Your task to perform on an android device: turn on showing notifications on the lock screen Image 0: 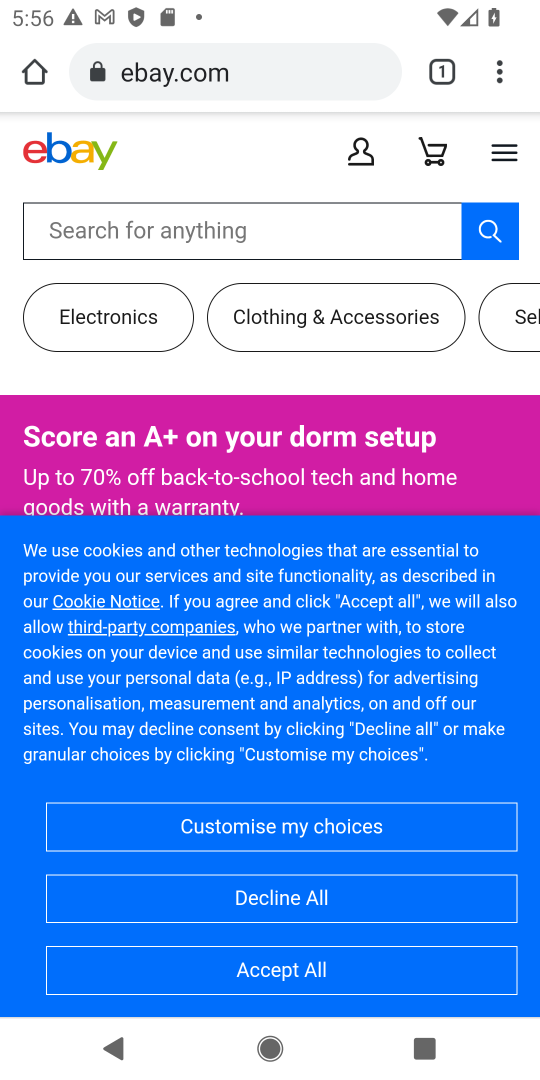
Step 0: press home button
Your task to perform on an android device: turn on showing notifications on the lock screen Image 1: 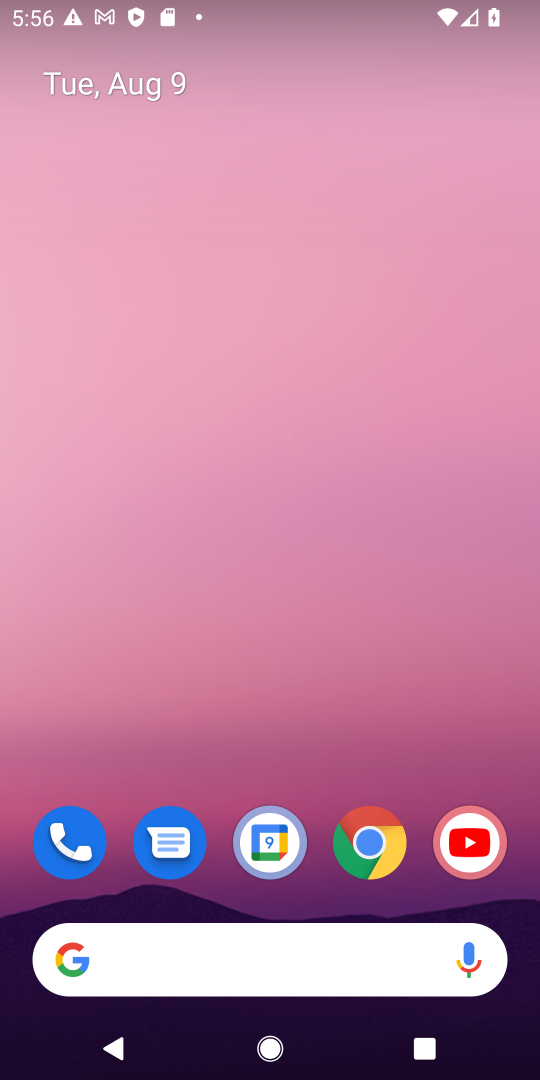
Step 1: drag from (213, 766) to (277, 244)
Your task to perform on an android device: turn on showing notifications on the lock screen Image 2: 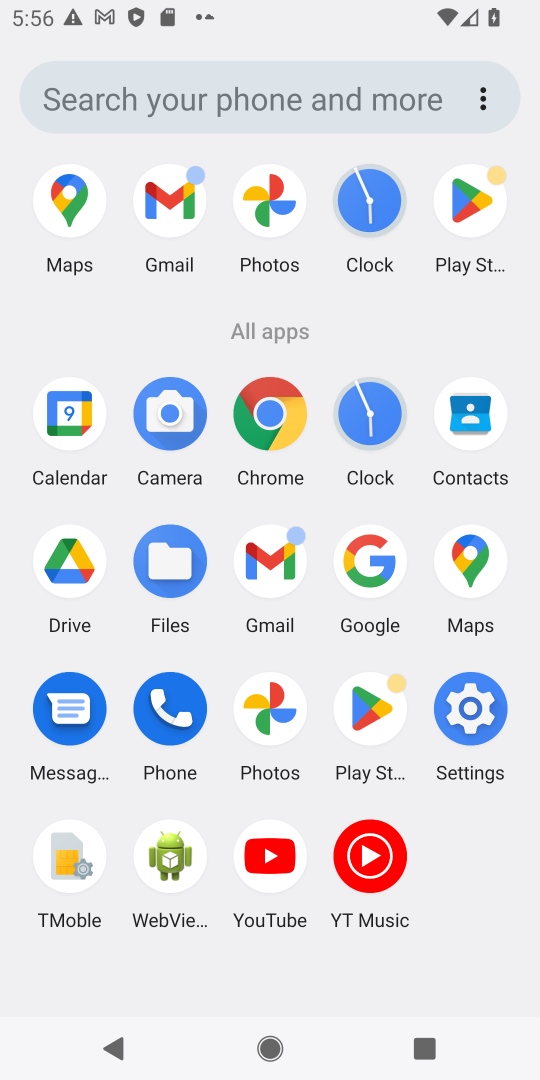
Step 2: click (457, 719)
Your task to perform on an android device: turn on showing notifications on the lock screen Image 3: 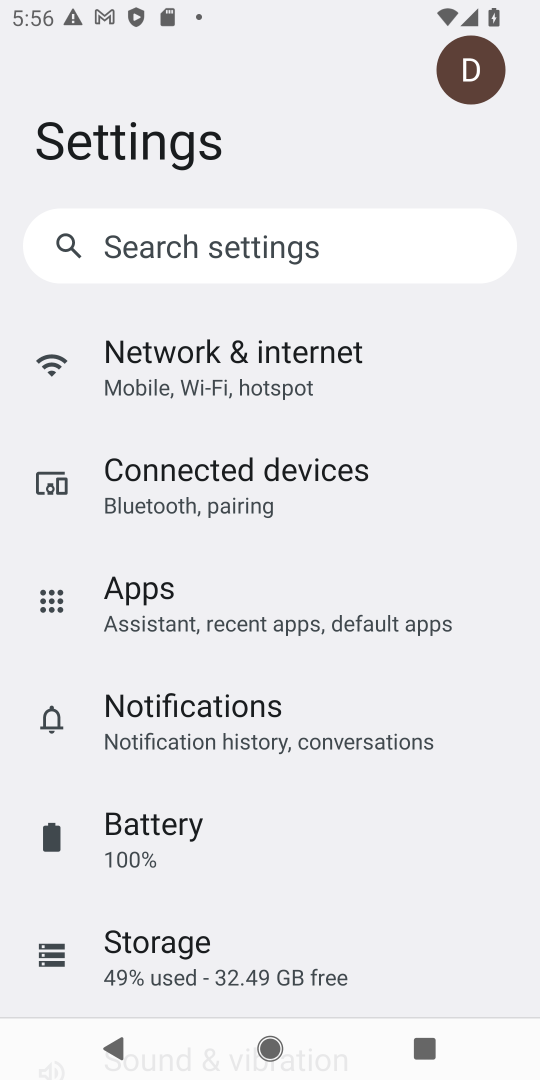
Step 3: click (232, 384)
Your task to perform on an android device: turn on showing notifications on the lock screen Image 4: 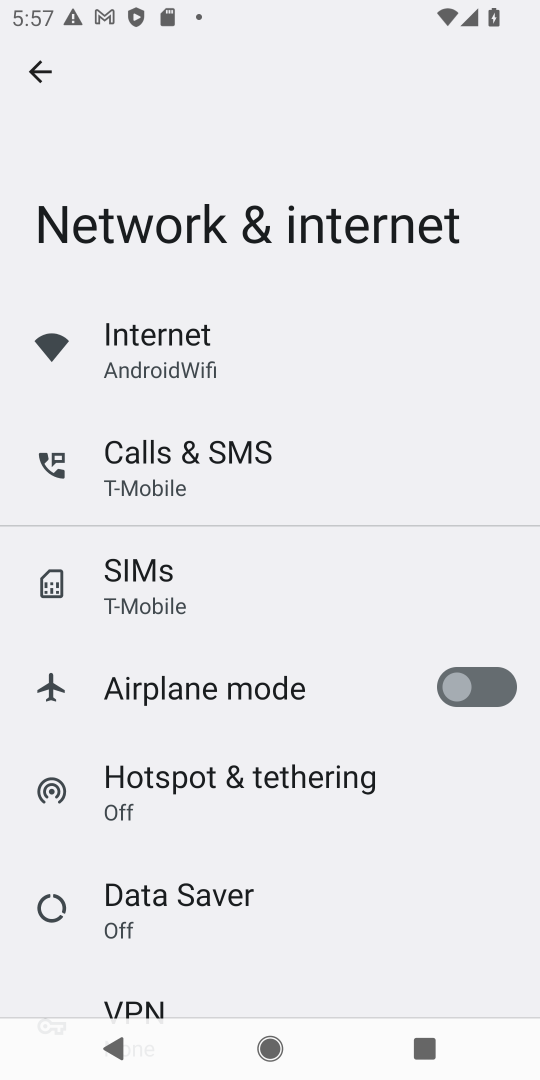
Step 4: click (146, 359)
Your task to perform on an android device: turn on showing notifications on the lock screen Image 5: 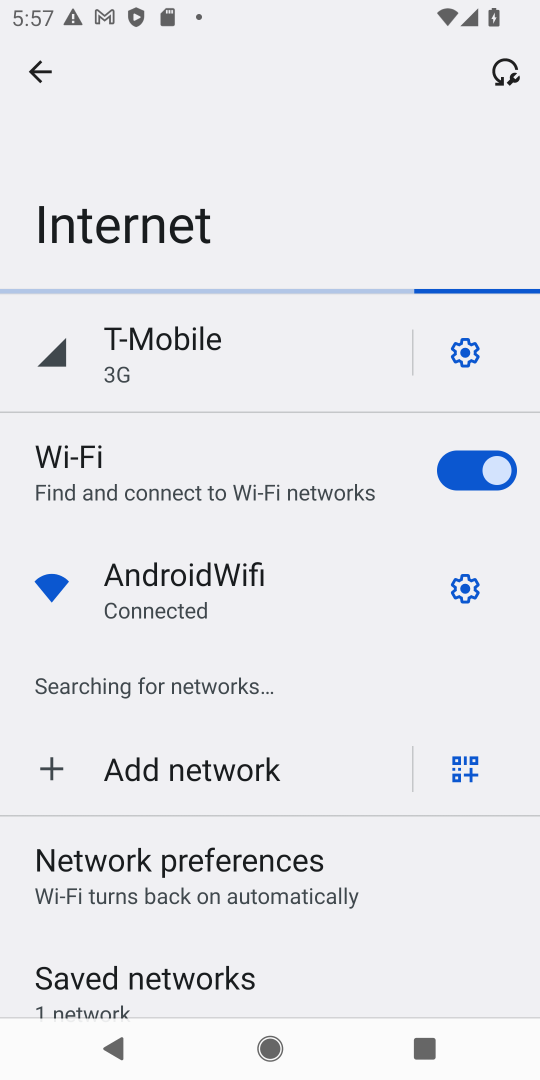
Step 5: click (124, 346)
Your task to perform on an android device: turn on showing notifications on the lock screen Image 6: 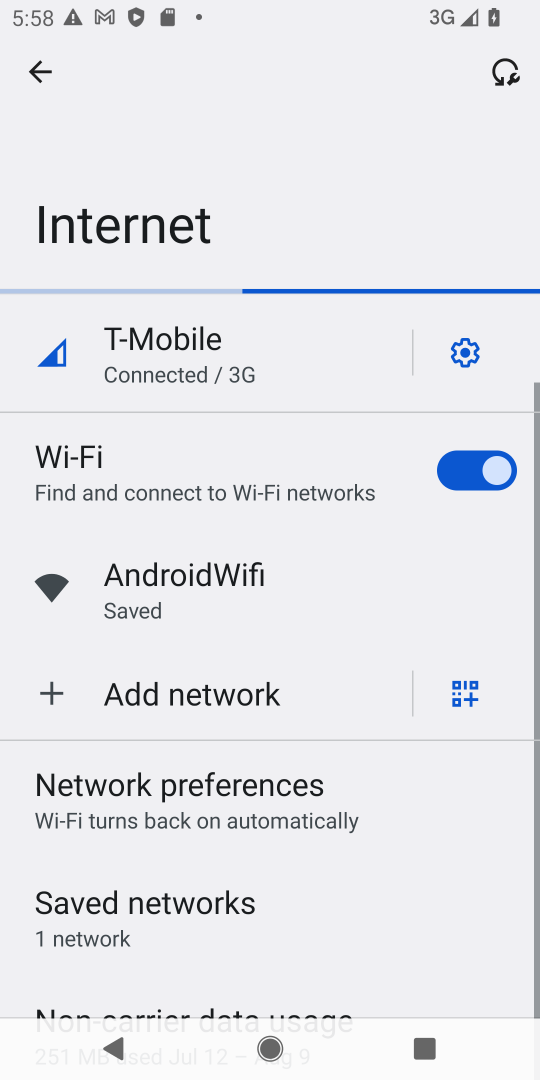
Step 6: task complete